Your task to perform on an android device: show emergency info Image 0: 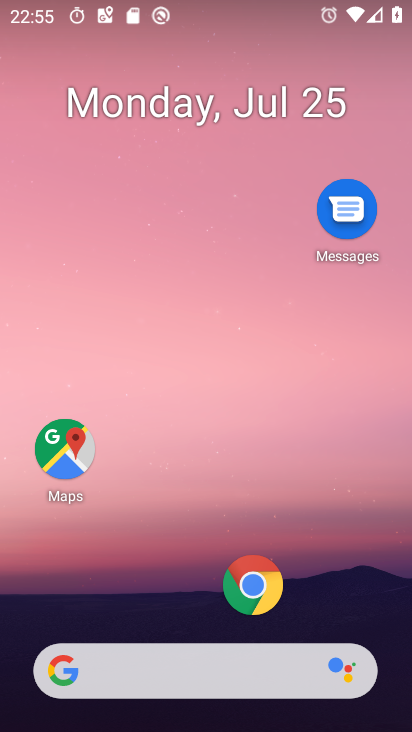
Step 0: press home button
Your task to perform on an android device: show emergency info Image 1: 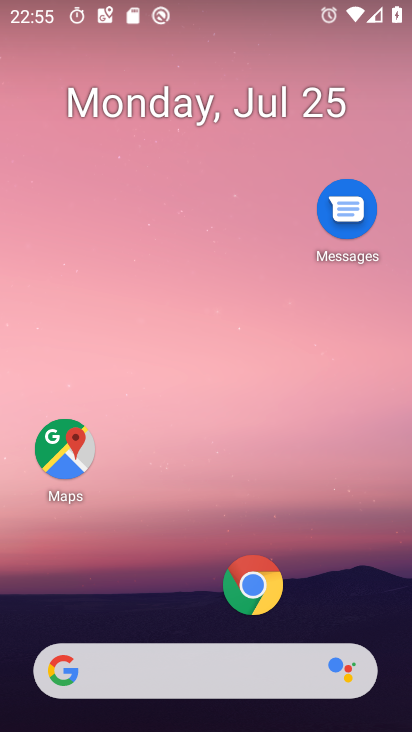
Step 1: drag from (182, 675) to (300, 150)
Your task to perform on an android device: show emergency info Image 2: 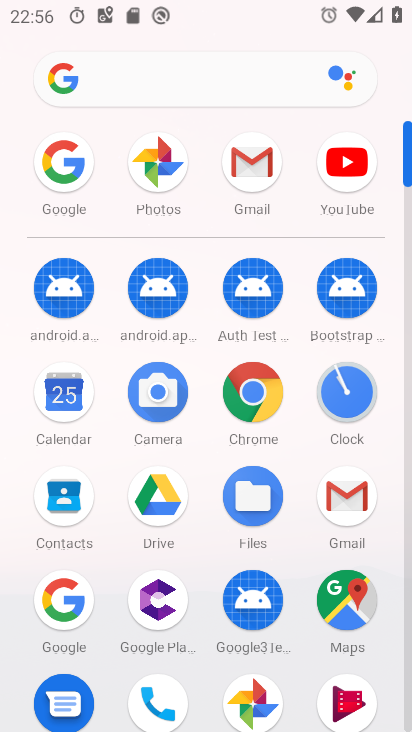
Step 2: drag from (219, 597) to (336, 276)
Your task to perform on an android device: show emergency info Image 3: 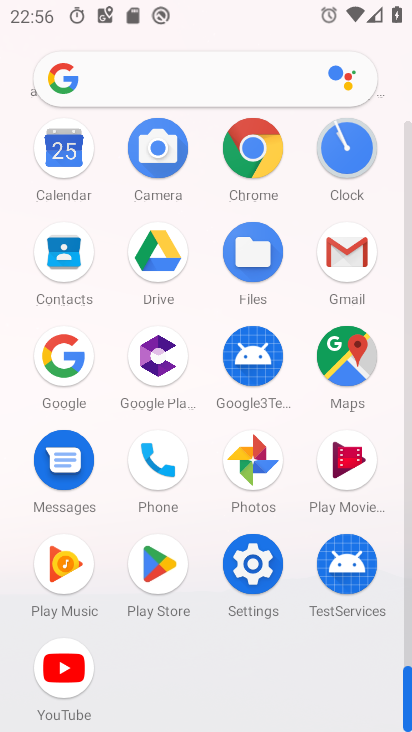
Step 3: click (261, 554)
Your task to perform on an android device: show emergency info Image 4: 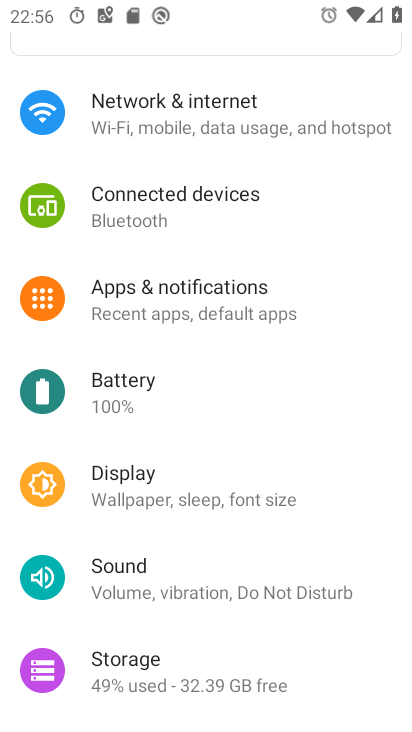
Step 4: drag from (317, 170) to (305, 515)
Your task to perform on an android device: show emergency info Image 5: 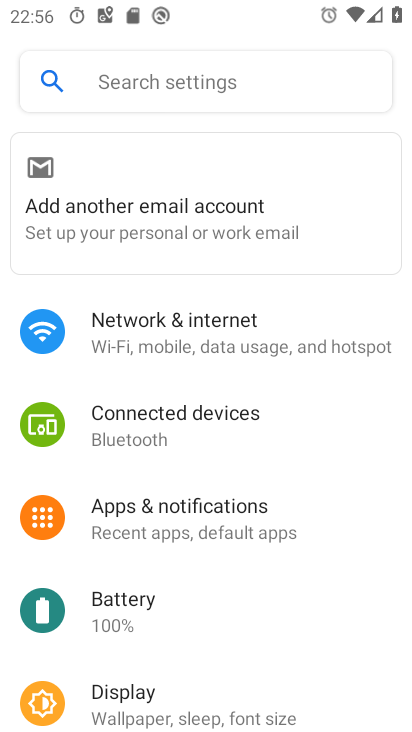
Step 5: drag from (314, 688) to (382, 58)
Your task to perform on an android device: show emergency info Image 6: 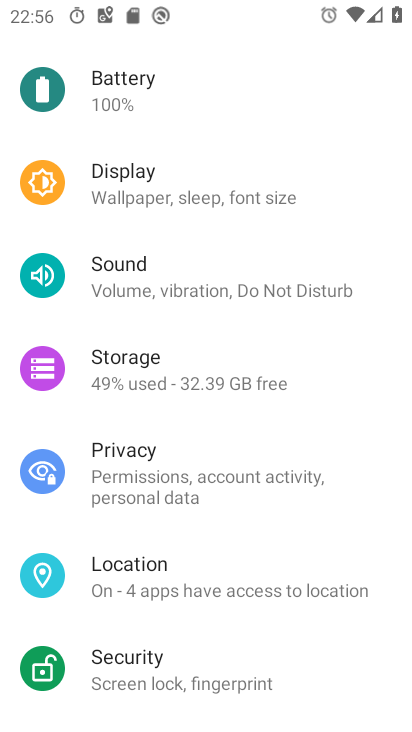
Step 6: drag from (262, 649) to (323, 152)
Your task to perform on an android device: show emergency info Image 7: 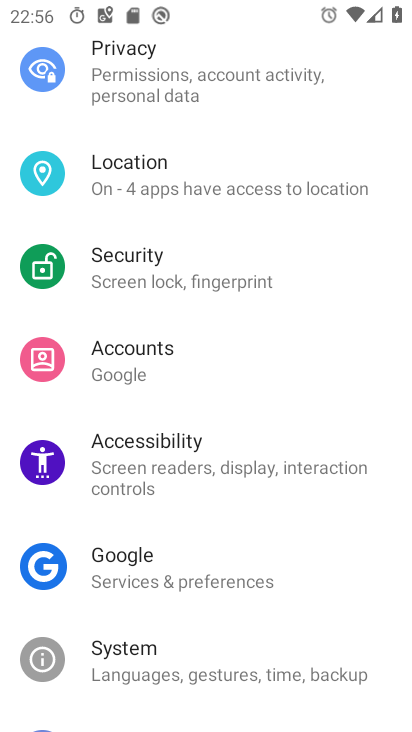
Step 7: drag from (331, 601) to (349, 319)
Your task to perform on an android device: show emergency info Image 8: 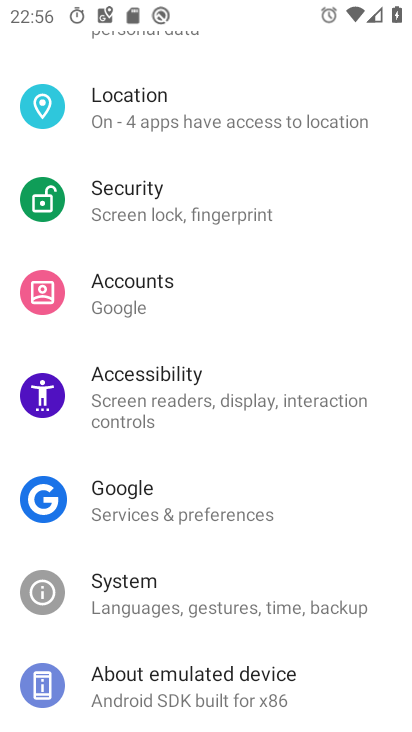
Step 8: click (216, 681)
Your task to perform on an android device: show emergency info Image 9: 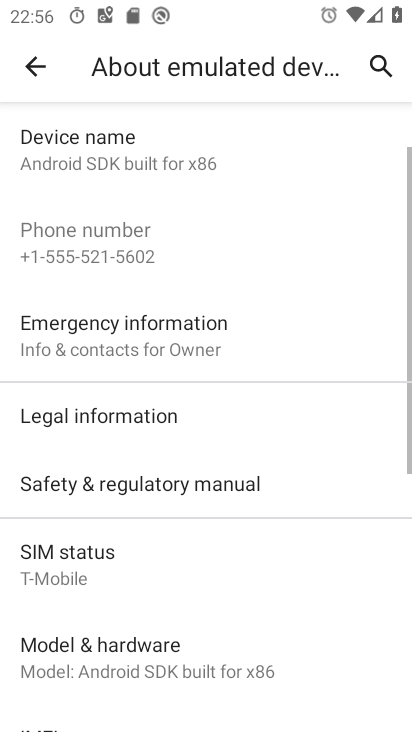
Step 9: click (168, 341)
Your task to perform on an android device: show emergency info Image 10: 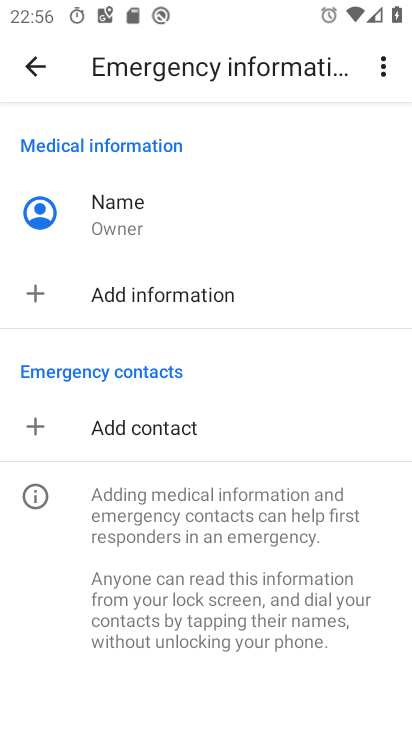
Step 10: task complete